Your task to perform on an android device: toggle location history Image 0: 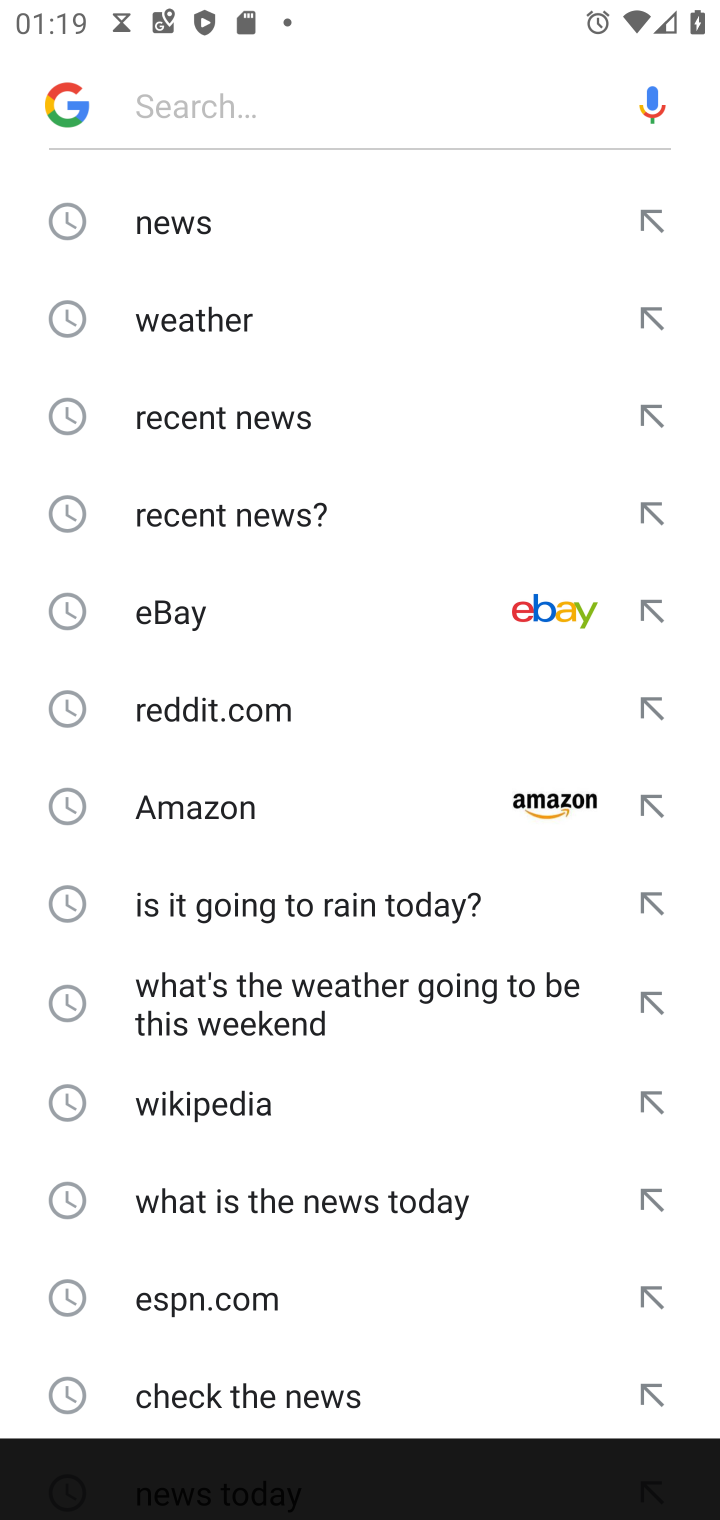
Step 0: press home button
Your task to perform on an android device: toggle location history Image 1: 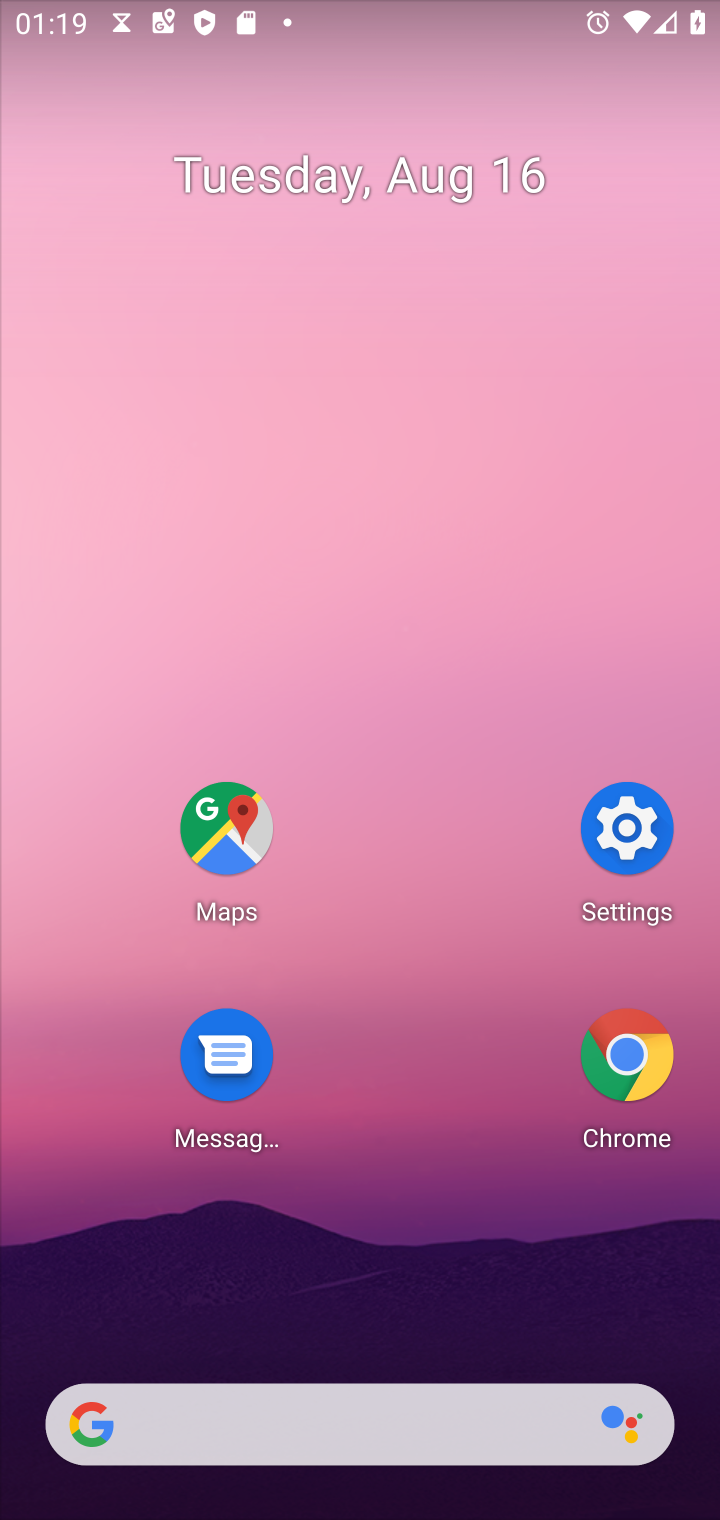
Step 1: click (618, 839)
Your task to perform on an android device: toggle location history Image 2: 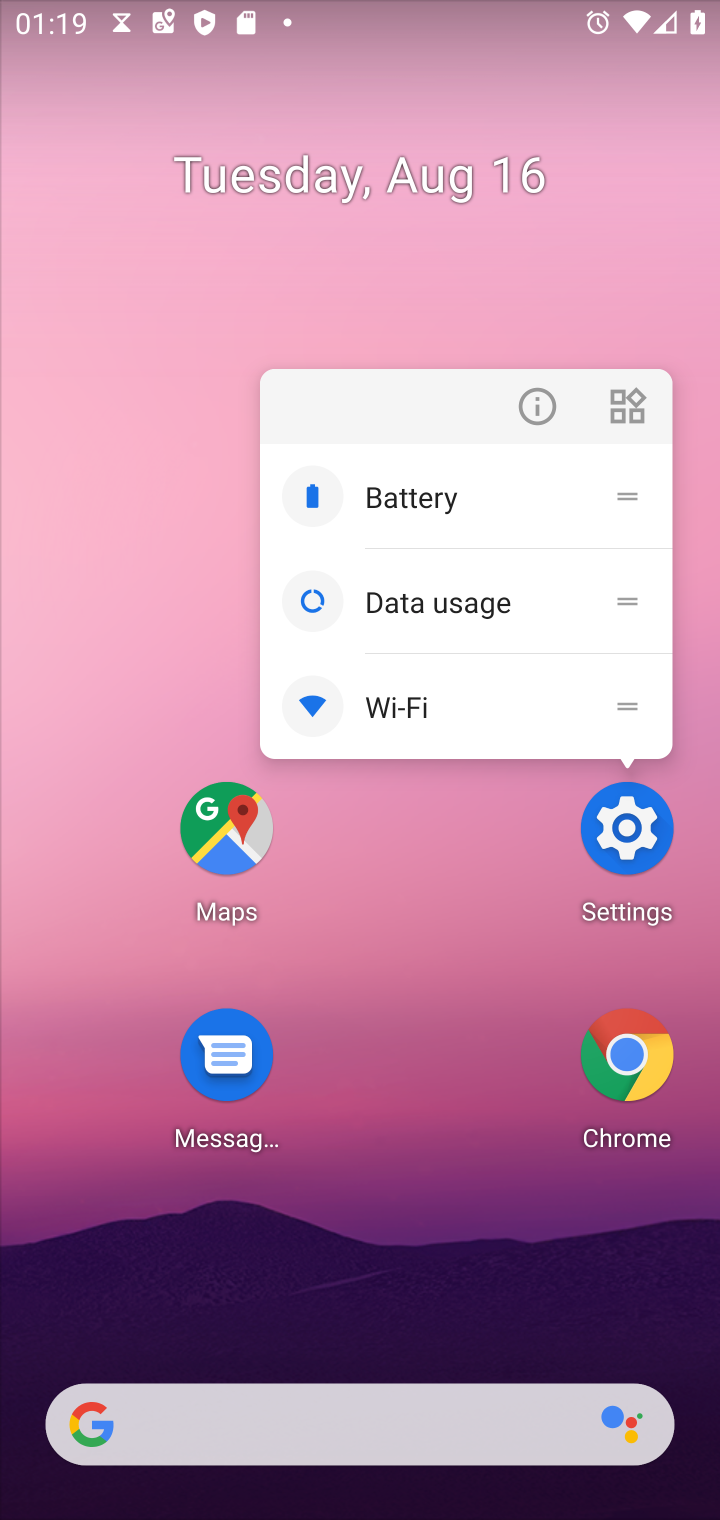
Step 2: click (254, 830)
Your task to perform on an android device: toggle location history Image 3: 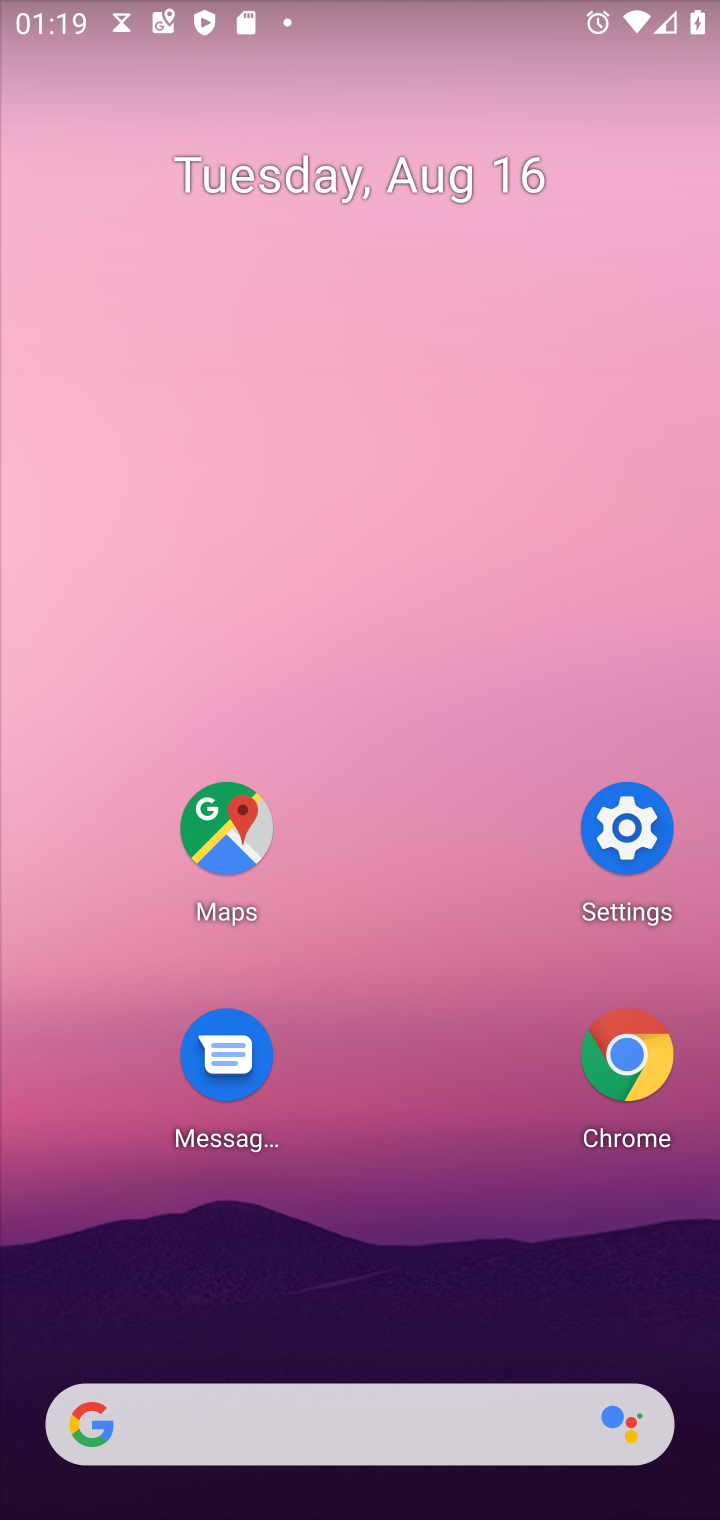
Step 3: click (232, 829)
Your task to perform on an android device: toggle location history Image 4: 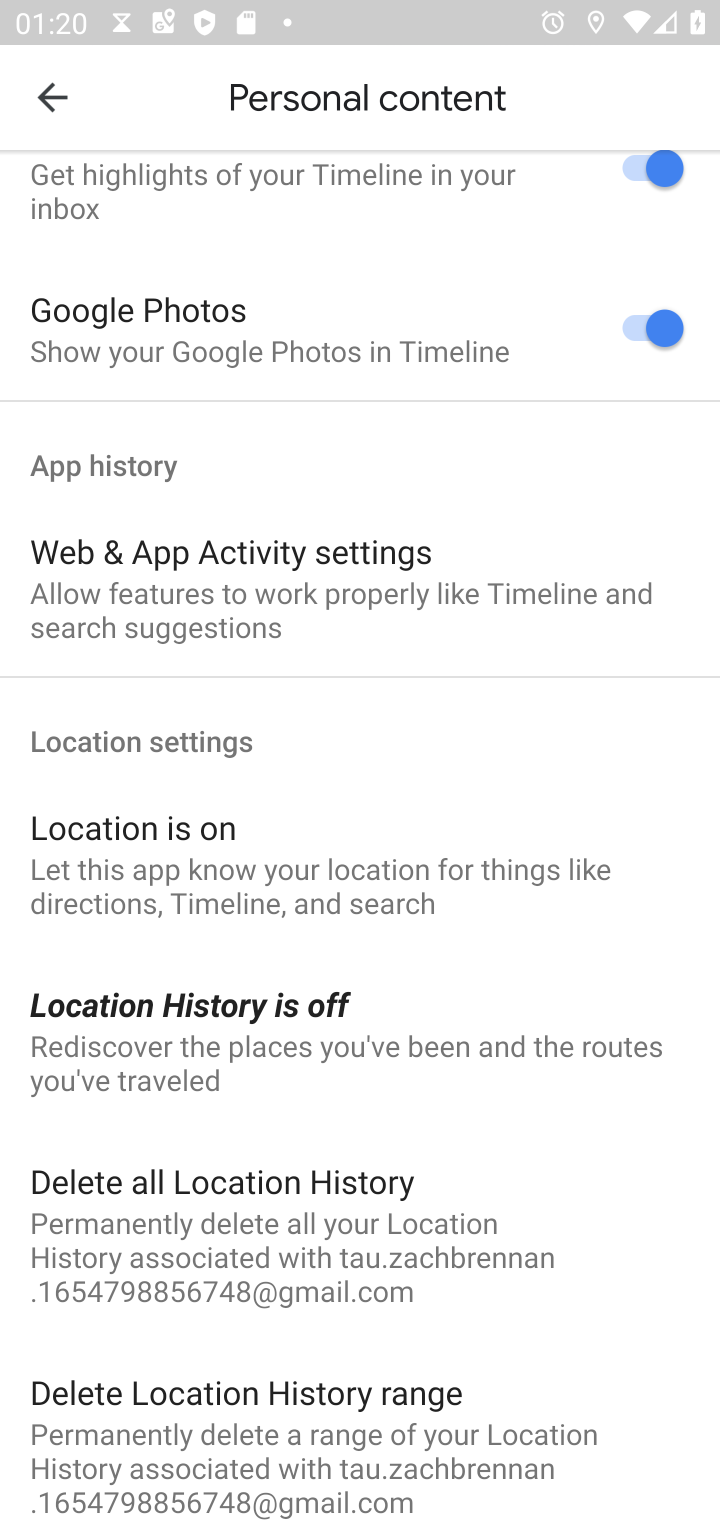
Step 4: click (215, 1026)
Your task to perform on an android device: toggle location history Image 5: 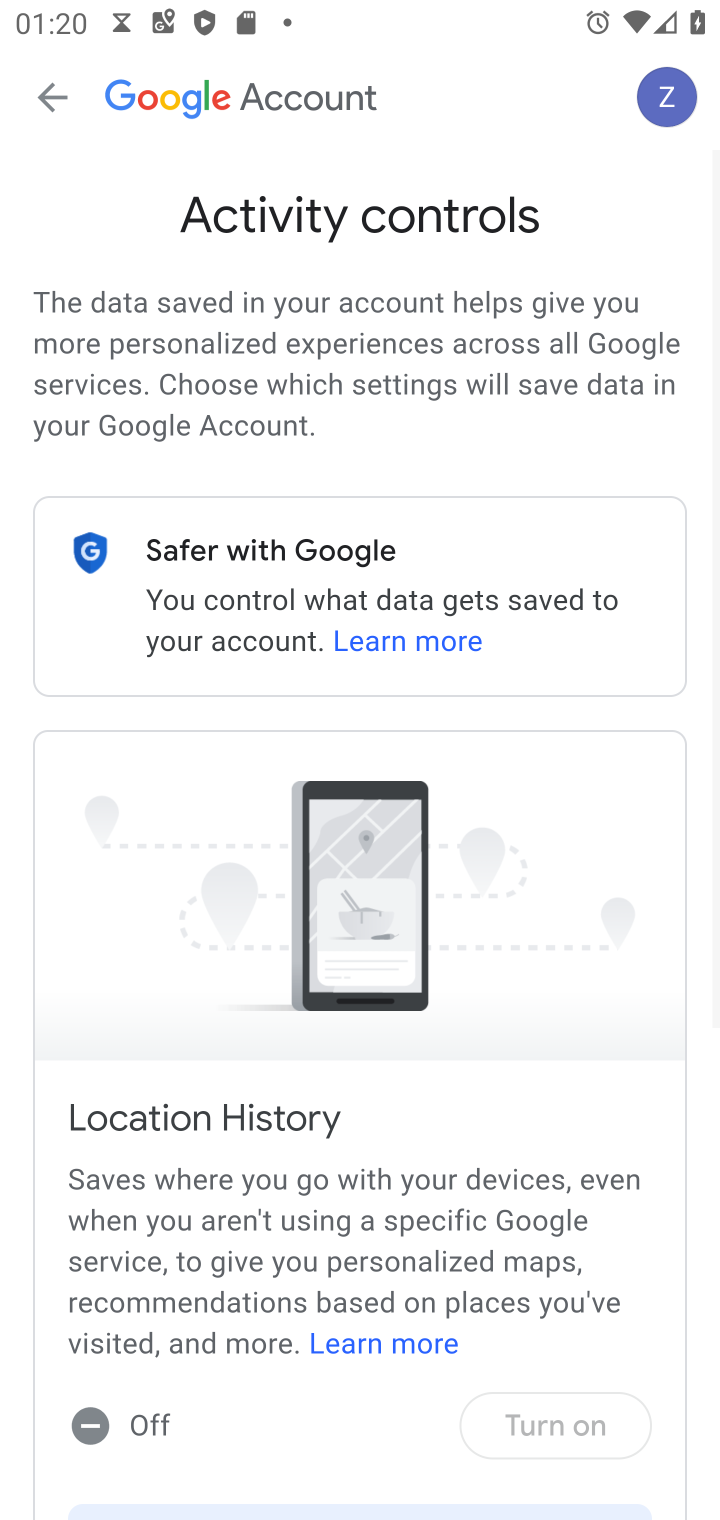
Step 5: task complete